Your task to perform on an android device: Open Wikipedia Image 0: 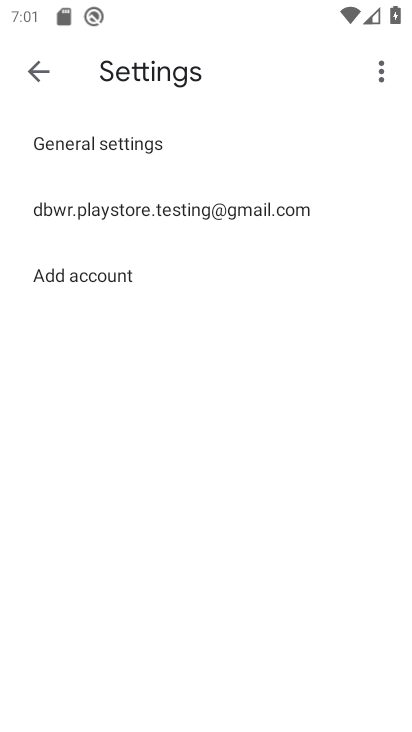
Step 0: press home button
Your task to perform on an android device: Open Wikipedia Image 1: 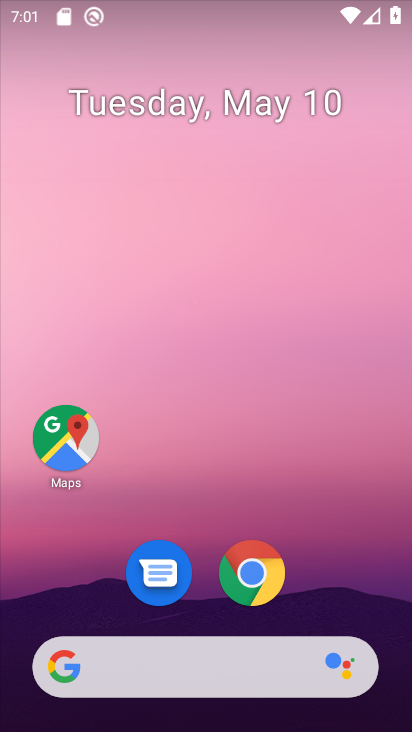
Step 1: drag from (276, 539) to (217, 97)
Your task to perform on an android device: Open Wikipedia Image 2: 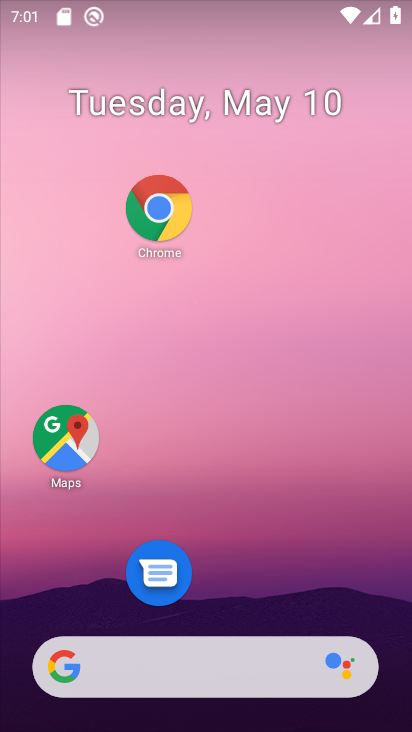
Step 2: drag from (310, 707) to (409, 162)
Your task to perform on an android device: Open Wikipedia Image 3: 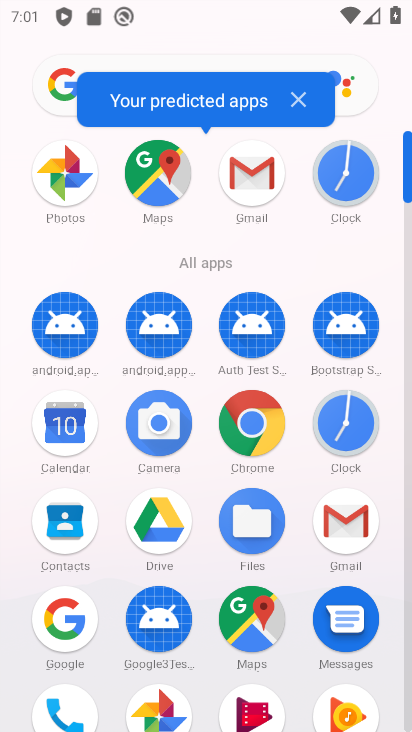
Step 3: click (254, 432)
Your task to perform on an android device: Open Wikipedia Image 4: 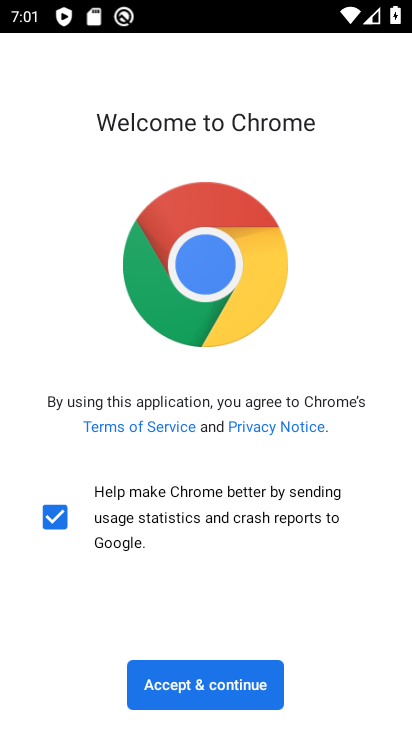
Step 4: click (164, 684)
Your task to perform on an android device: Open Wikipedia Image 5: 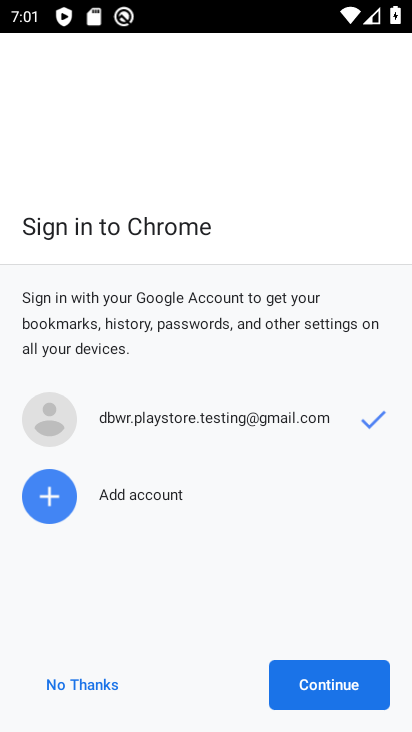
Step 5: click (319, 689)
Your task to perform on an android device: Open Wikipedia Image 6: 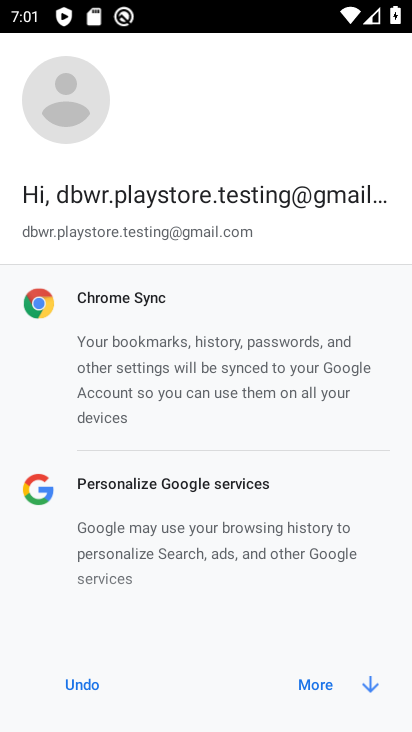
Step 6: click (343, 684)
Your task to perform on an android device: Open Wikipedia Image 7: 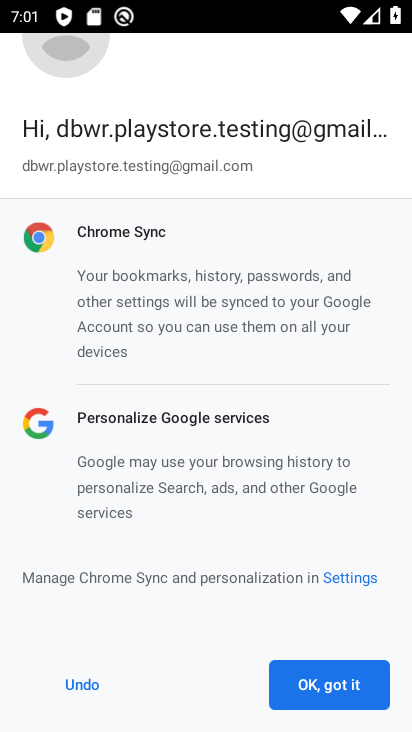
Step 7: click (360, 663)
Your task to perform on an android device: Open Wikipedia Image 8: 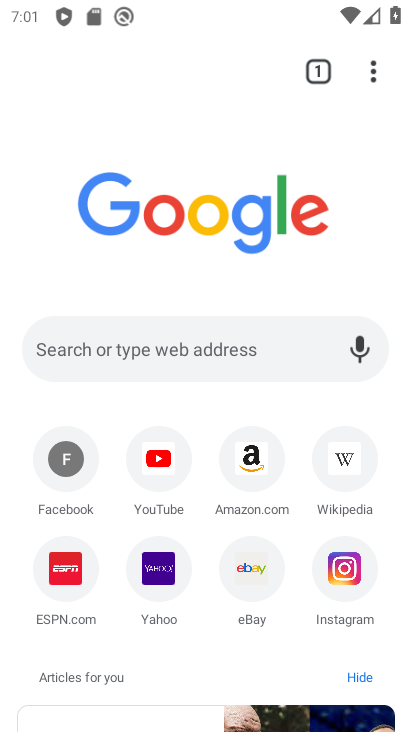
Step 8: click (351, 467)
Your task to perform on an android device: Open Wikipedia Image 9: 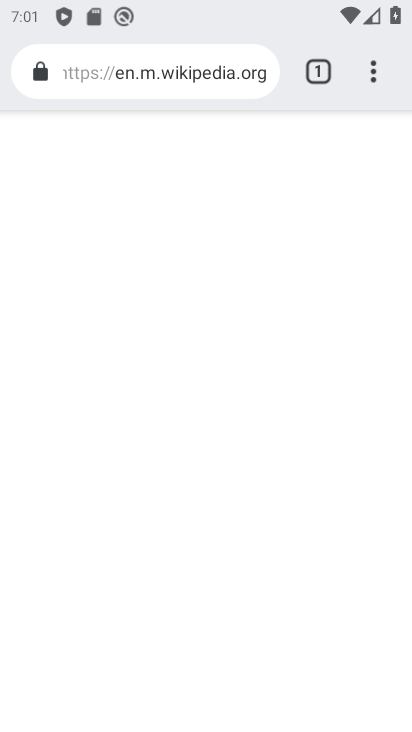
Step 9: task complete